Your task to perform on an android device: toggle notification dots Image 0: 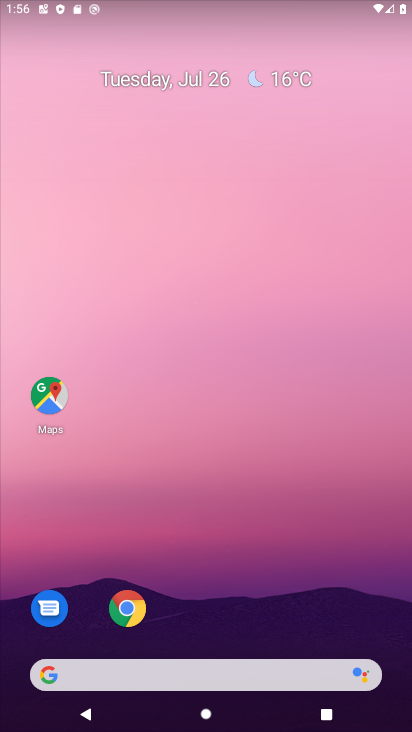
Step 0: drag from (279, 647) to (183, 36)
Your task to perform on an android device: toggle notification dots Image 1: 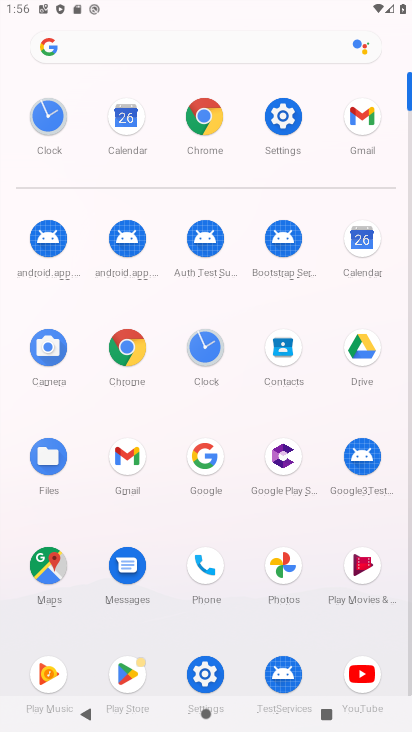
Step 1: click (271, 123)
Your task to perform on an android device: toggle notification dots Image 2: 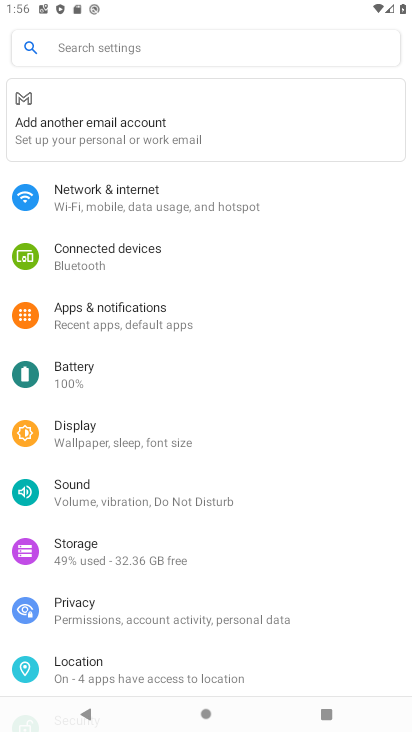
Step 2: click (234, 317)
Your task to perform on an android device: toggle notification dots Image 3: 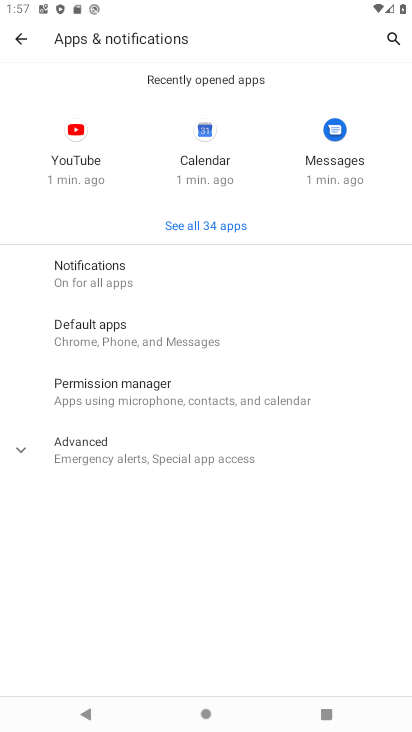
Step 3: click (169, 269)
Your task to perform on an android device: toggle notification dots Image 4: 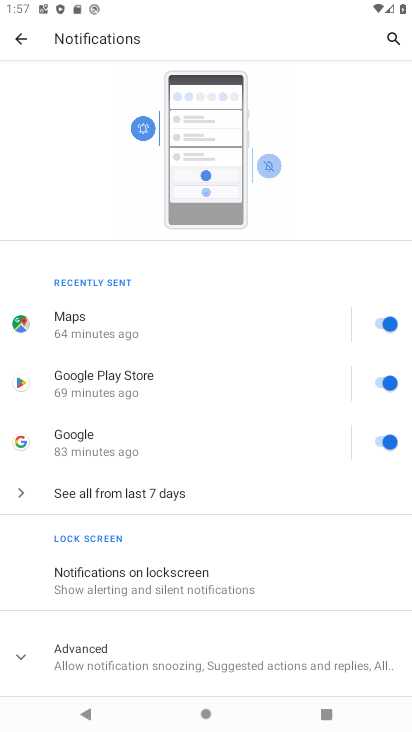
Step 4: drag from (253, 627) to (235, 233)
Your task to perform on an android device: toggle notification dots Image 5: 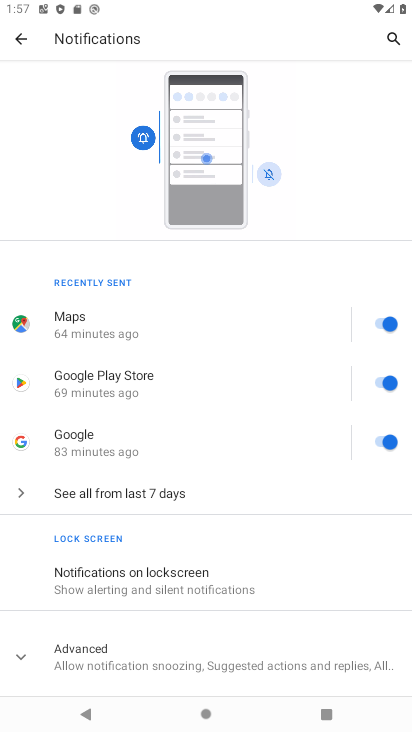
Step 5: click (279, 642)
Your task to perform on an android device: toggle notification dots Image 6: 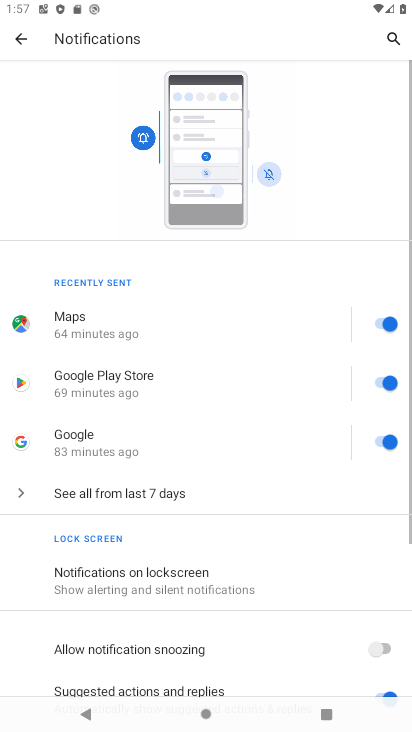
Step 6: drag from (271, 629) to (293, 269)
Your task to perform on an android device: toggle notification dots Image 7: 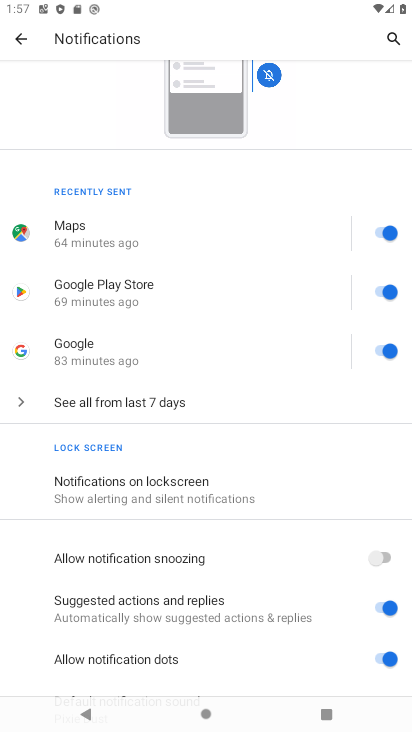
Step 7: click (391, 657)
Your task to perform on an android device: toggle notification dots Image 8: 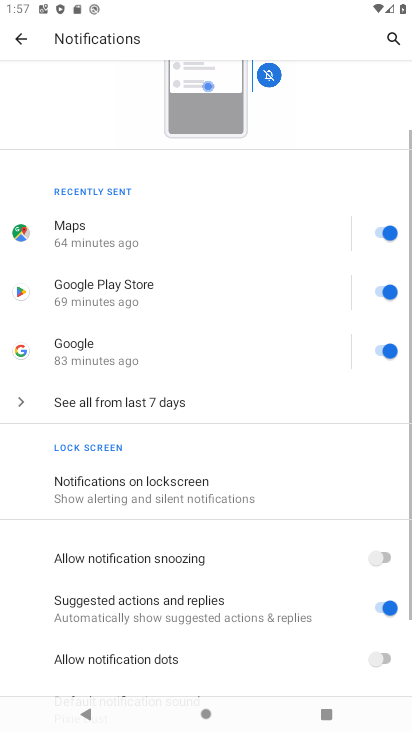
Step 8: task complete